Your task to perform on an android device: Open calendar and show me the first week of next month Image 0: 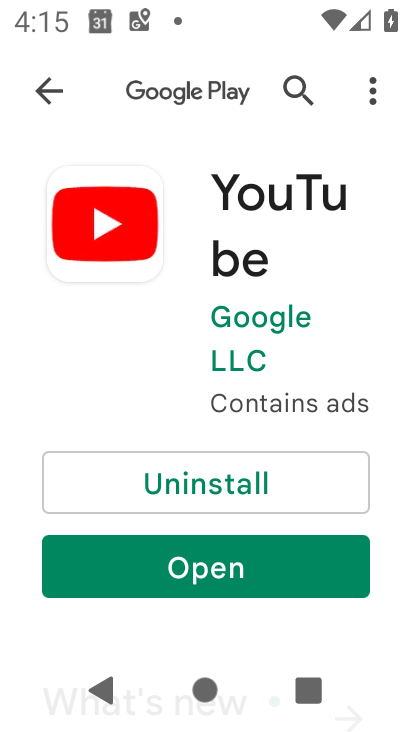
Step 0: press home button
Your task to perform on an android device: Open calendar and show me the first week of next month Image 1: 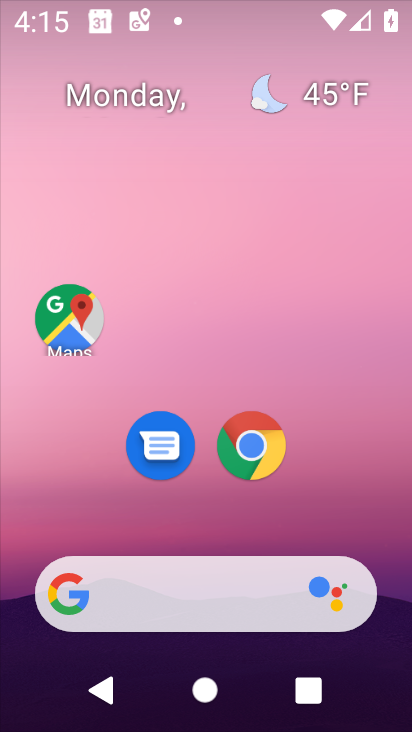
Step 1: drag from (110, 526) to (214, 0)
Your task to perform on an android device: Open calendar and show me the first week of next month Image 2: 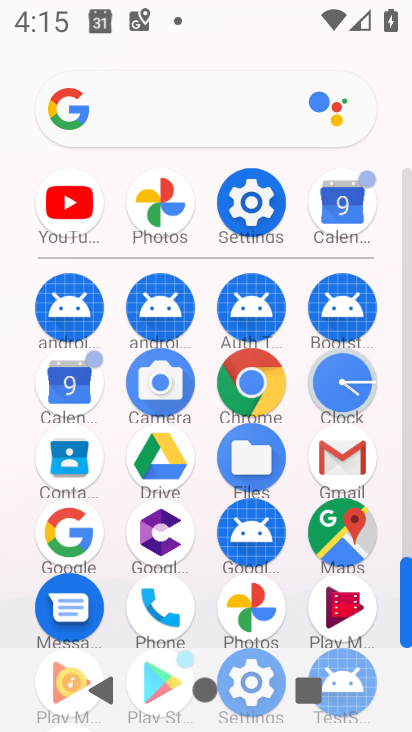
Step 2: click (61, 373)
Your task to perform on an android device: Open calendar and show me the first week of next month Image 3: 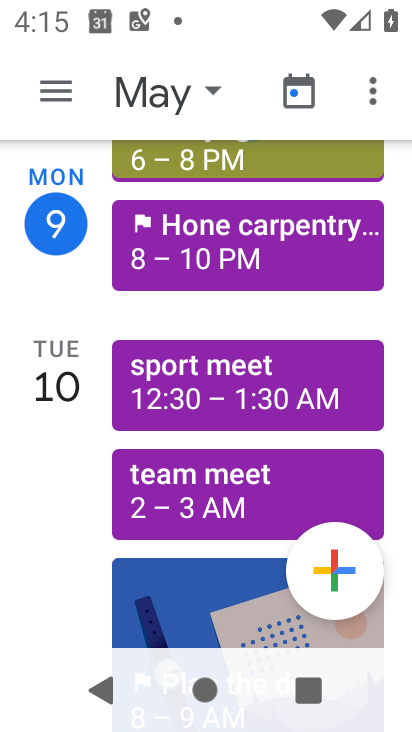
Step 3: click (159, 103)
Your task to perform on an android device: Open calendar and show me the first week of next month Image 4: 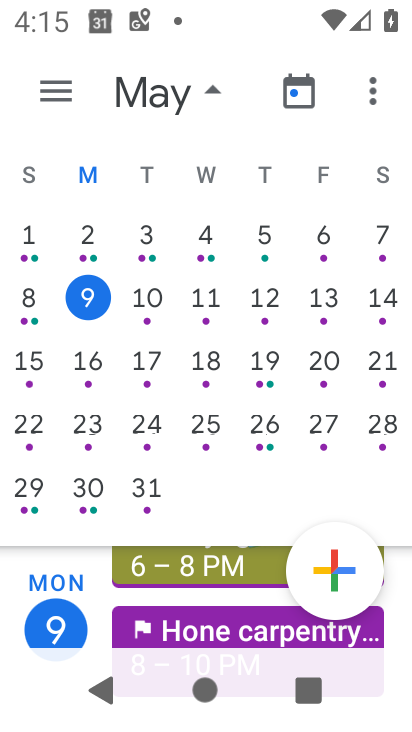
Step 4: task complete